Your task to perform on an android device: remove spam from my inbox in the gmail app Image 0: 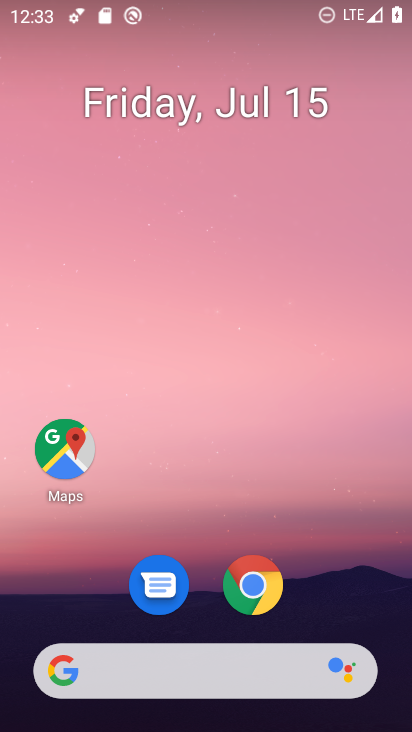
Step 0: drag from (230, 490) to (242, 23)
Your task to perform on an android device: remove spam from my inbox in the gmail app Image 1: 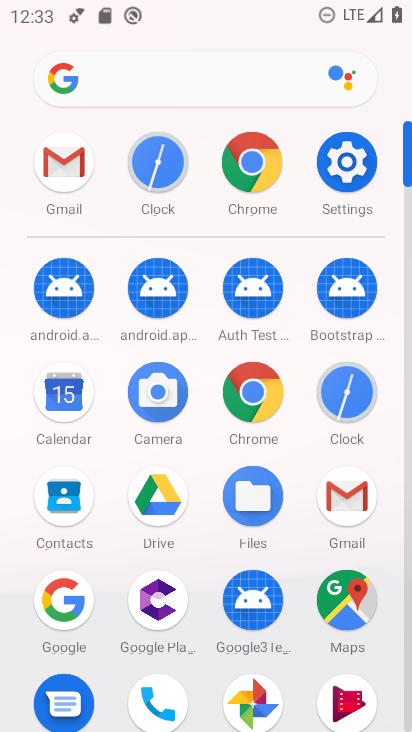
Step 1: click (63, 165)
Your task to perform on an android device: remove spam from my inbox in the gmail app Image 2: 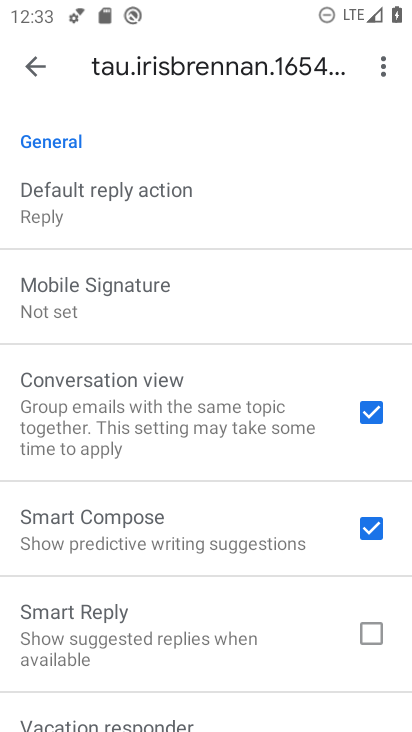
Step 2: click (35, 69)
Your task to perform on an android device: remove spam from my inbox in the gmail app Image 3: 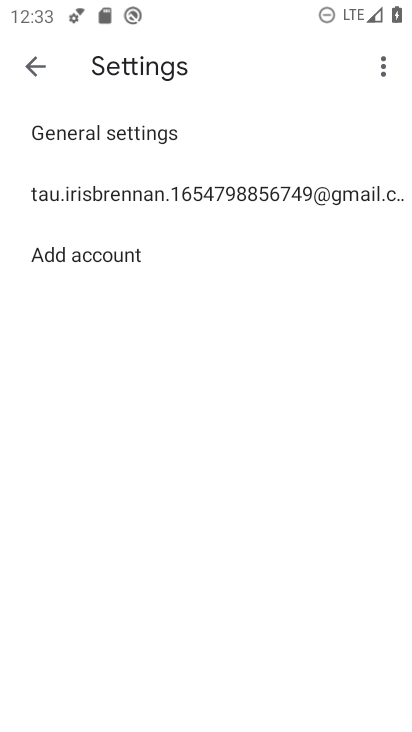
Step 3: click (42, 64)
Your task to perform on an android device: remove spam from my inbox in the gmail app Image 4: 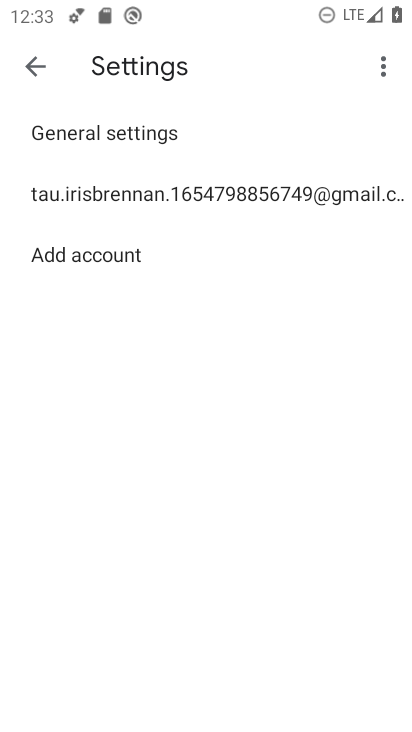
Step 4: click (34, 66)
Your task to perform on an android device: remove spam from my inbox in the gmail app Image 5: 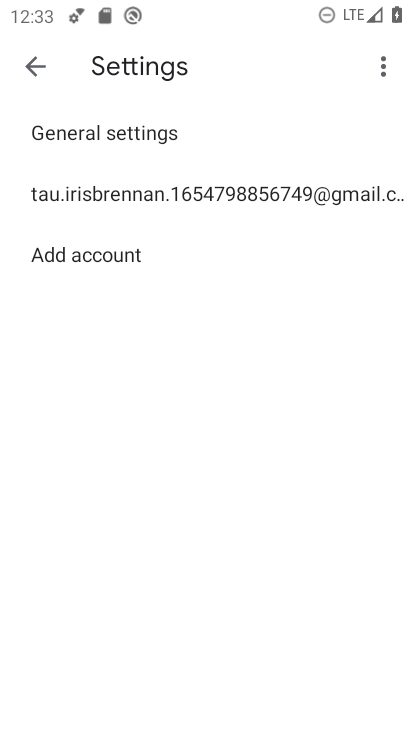
Step 5: click (34, 66)
Your task to perform on an android device: remove spam from my inbox in the gmail app Image 6: 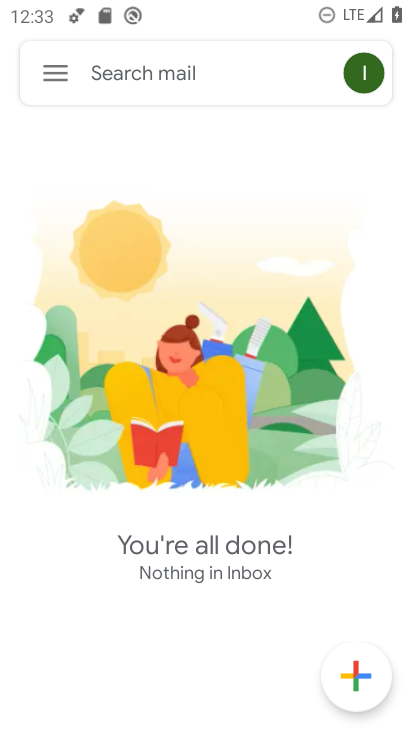
Step 6: click (51, 74)
Your task to perform on an android device: remove spam from my inbox in the gmail app Image 7: 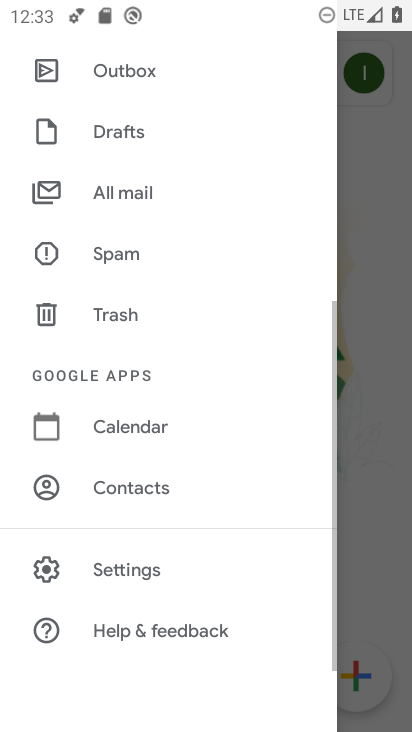
Step 7: click (128, 249)
Your task to perform on an android device: remove spam from my inbox in the gmail app Image 8: 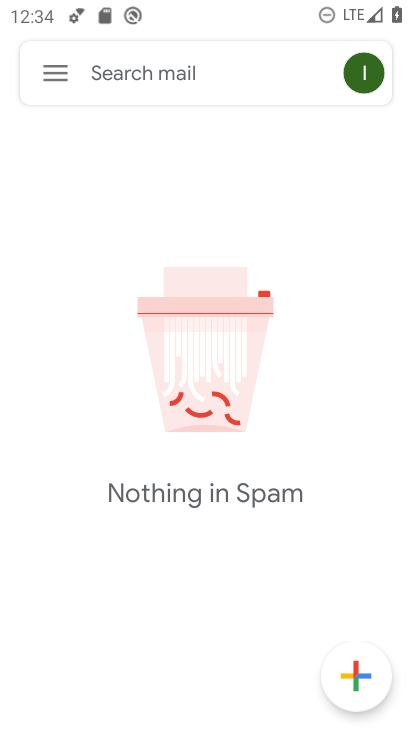
Step 8: task complete